Your task to perform on an android device: Search for the best 4k TVs Image 0: 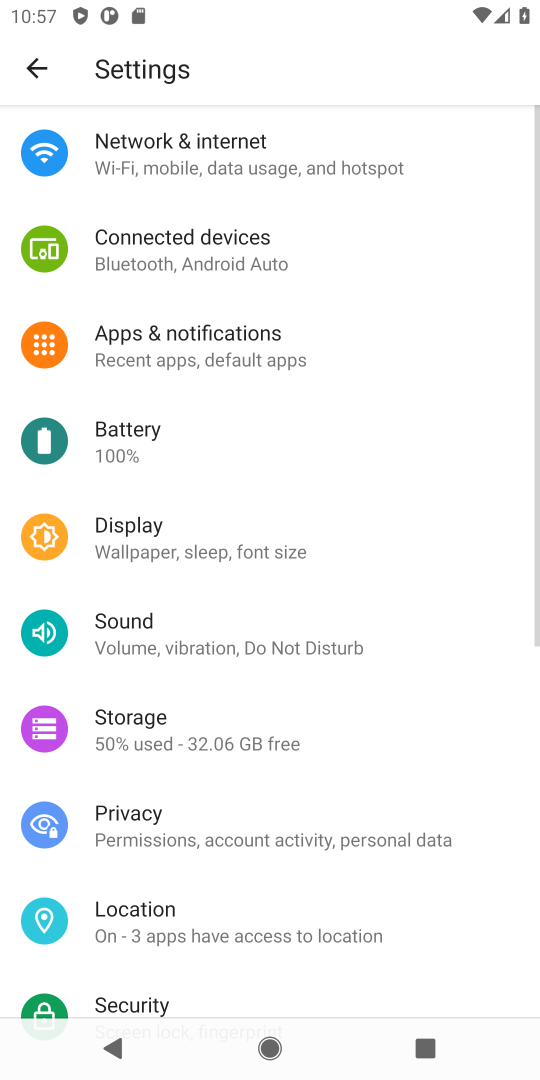
Step 0: press home button
Your task to perform on an android device: Search for the best 4k TVs Image 1: 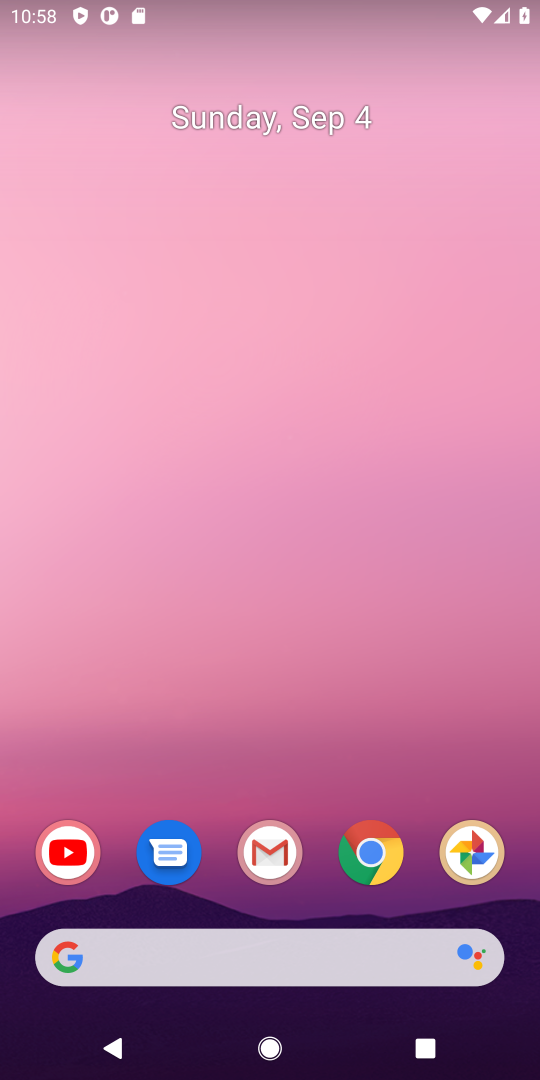
Step 1: drag from (429, 887) to (353, 403)
Your task to perform on an android device: Search for the best 4k TVs Image 2: 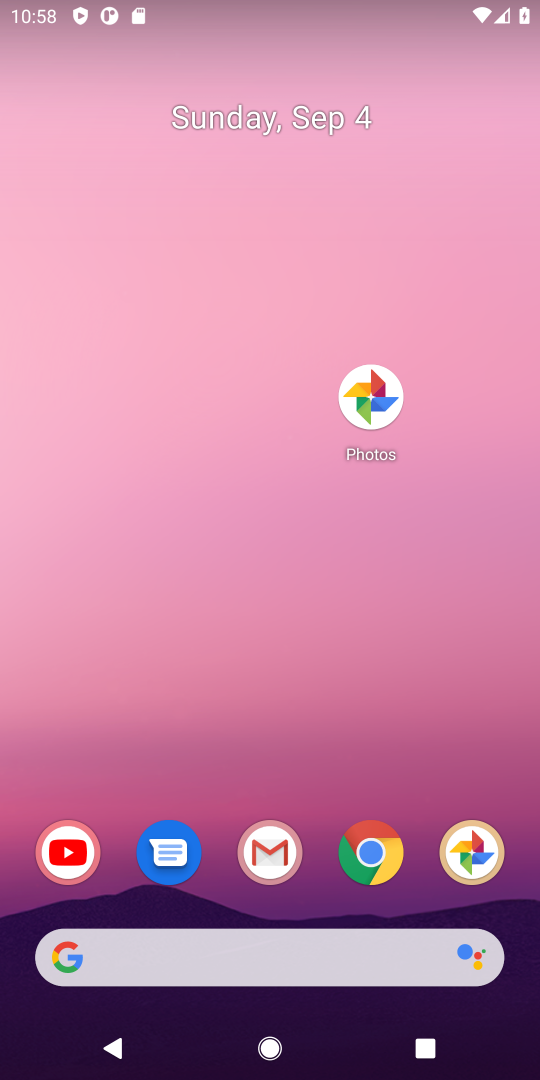
Step 2: drag from (292, 342) to (190, 4)
Your task to perform on an android device: Search for the best 4k TVs Image 3: 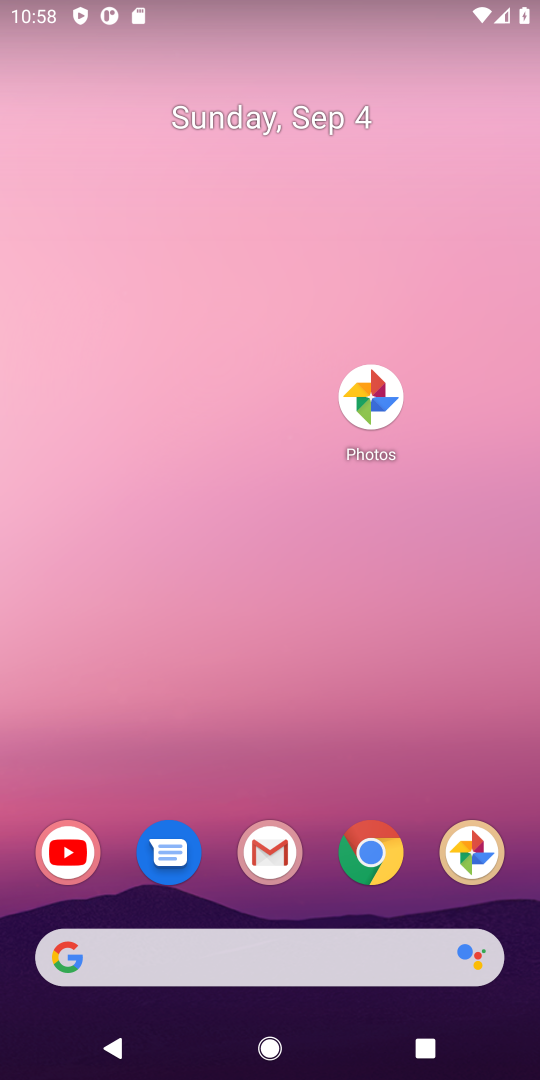
Step 3: click (153, 23)
Your task to perform on an android device: Search for the best 4k TVs Image 4: 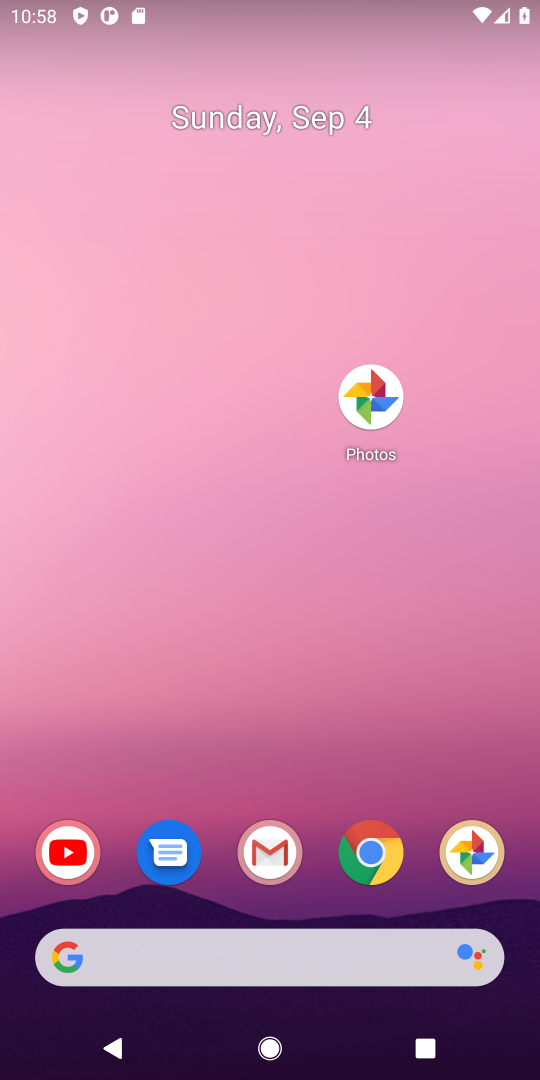
Step 4: drag from (387, 256) to (261, 30)
Your task to perform on an android device: Search for the best 4k TVs Image 5: 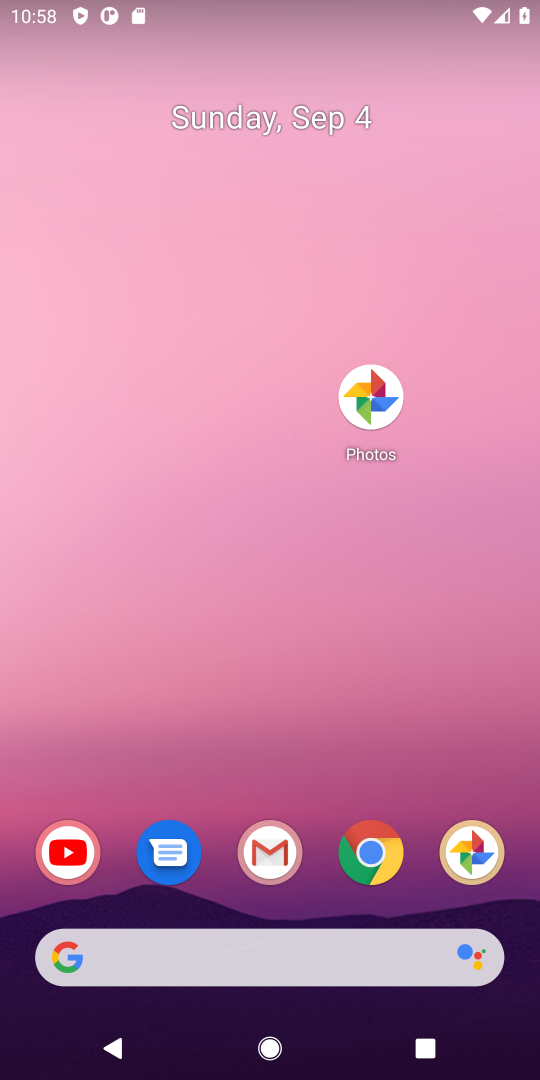
Step 5: drag from (445, 558) to (196, 20)
Your task to perform on an android device: Search for the best 4k TVs Image 6: 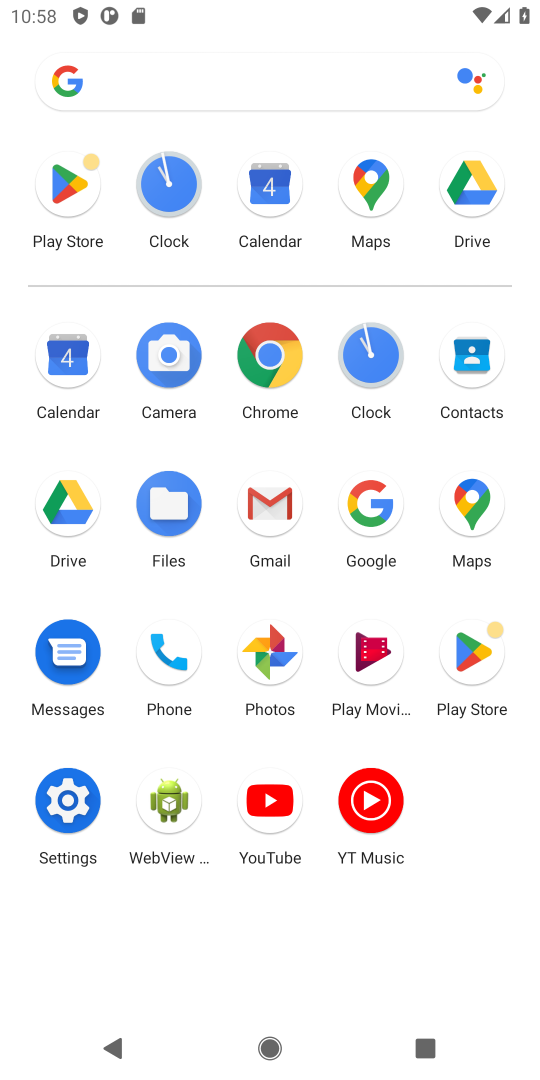
Step 6: click (356, 513)
Your task to perform on an android device: Search for the best 4k TVs Image 7: 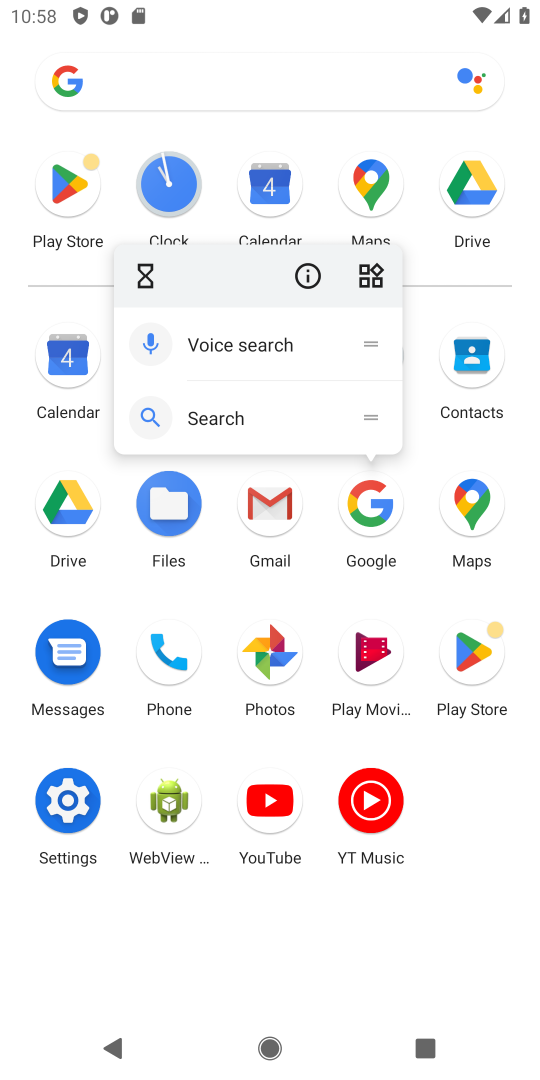
Step 7: click (356, 513)
Your task to perform on an android device: Search for the best 4k TVs Image 8: 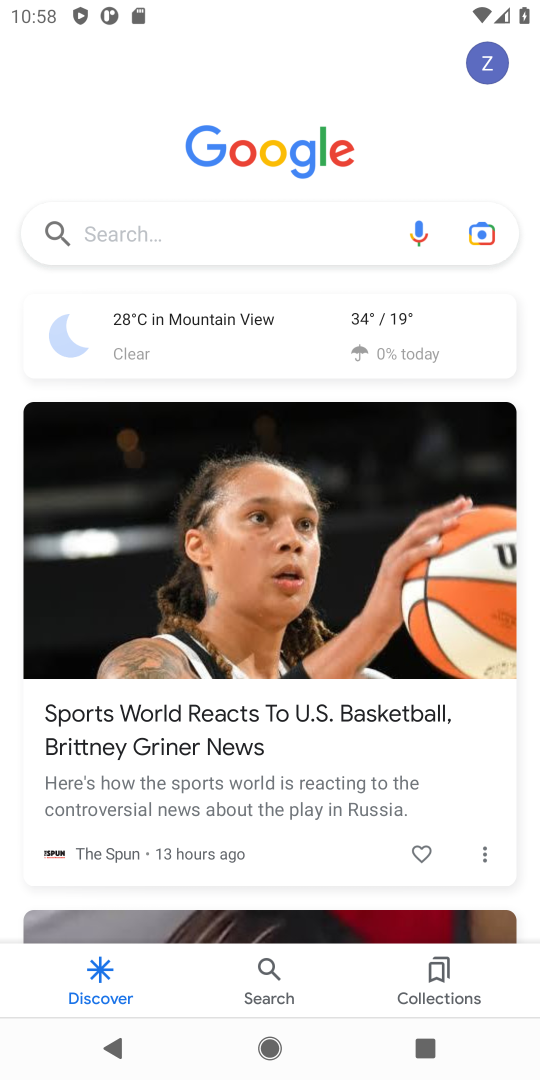
Step 8: click (201, 234)
Your task to perform on an android device: Search for the best 4k TVs Image 9: 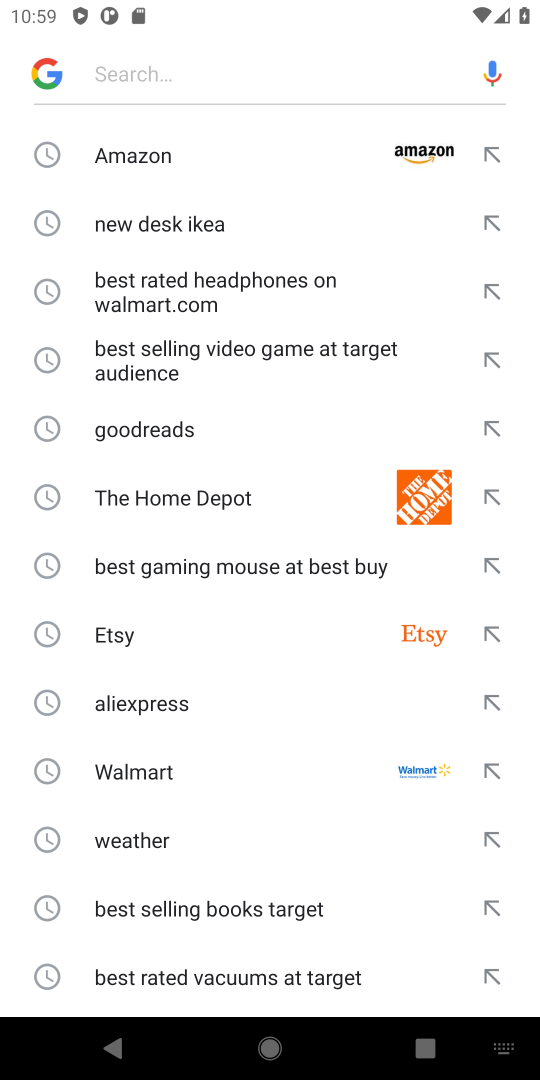
Step 9: type "best 4k TVs"
Your task to perform on an android device: Search for the best 4k TVs Image 10: 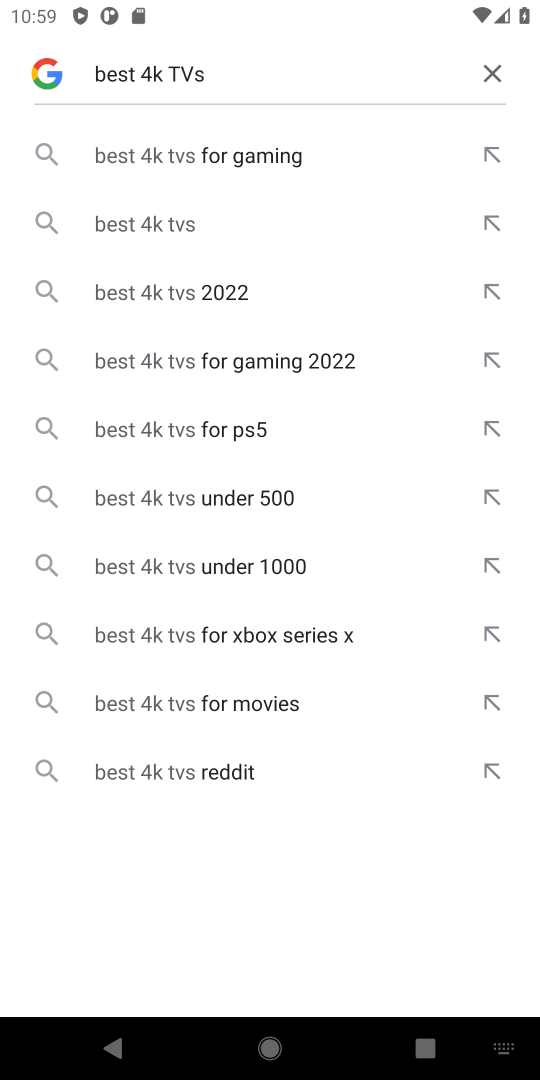
Step 10: click (164, 228)
Your task to perform on an android device: Search for the best 4k TVs Image 11: 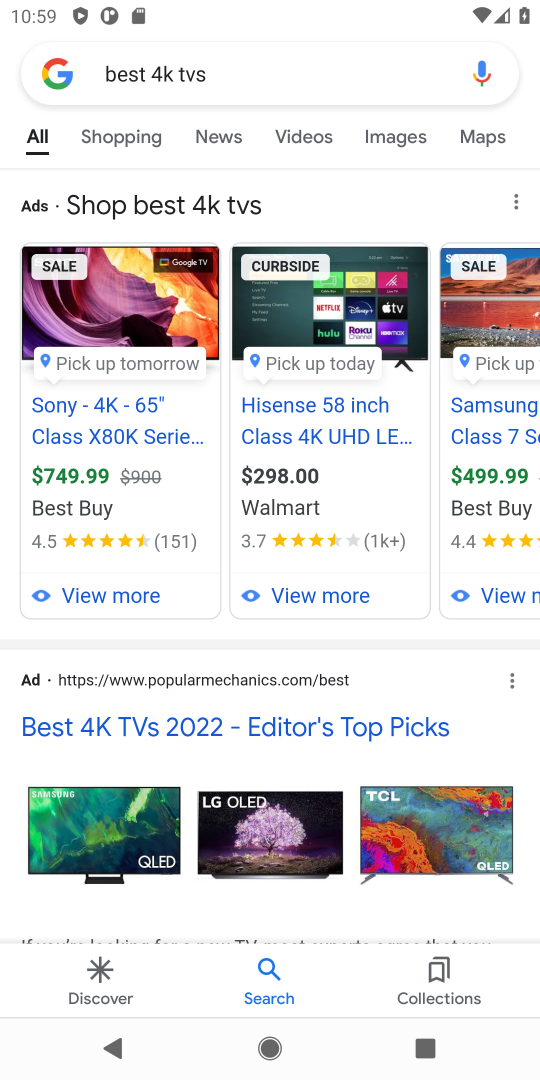
Step 11: task complete